Your task to perform on an android device: Go to sound settings Image 0: 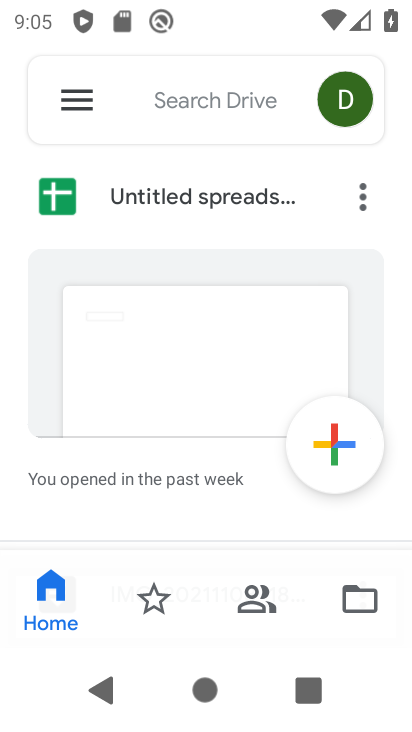
Step 0: press home button
Your task to perform on an android device: Go to sound settings Image 1: 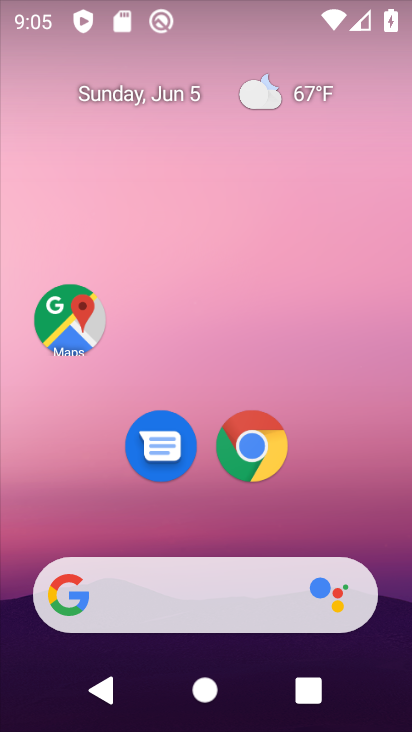
Step 1: drag from (206, 529) to (197, 98)
Your task to perform on an android device: Go to sound settings Image 2: 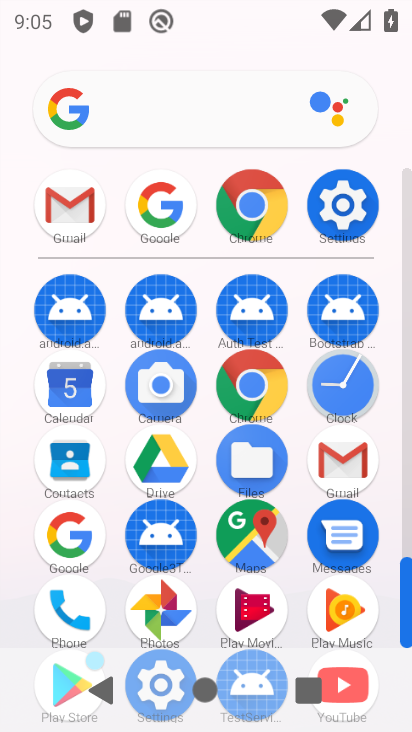
Step 2: click (326, 212)
Your task to perform on an android device: Go to sound settings Image 3: 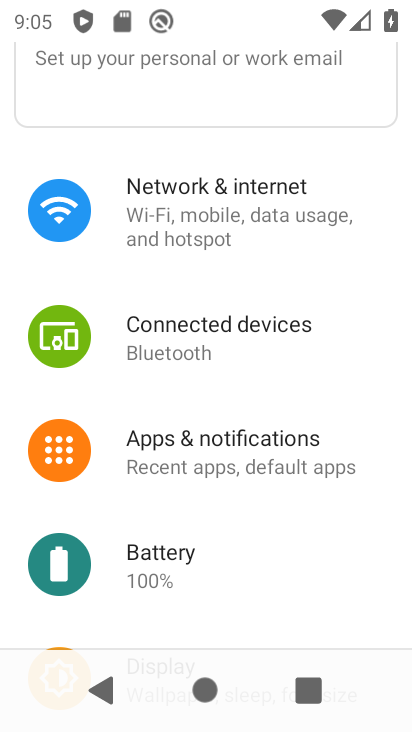
Step 3: drag from (222, 546) to (248, 300)
Your task to perform on an android device: Go to sound settings Image 4: 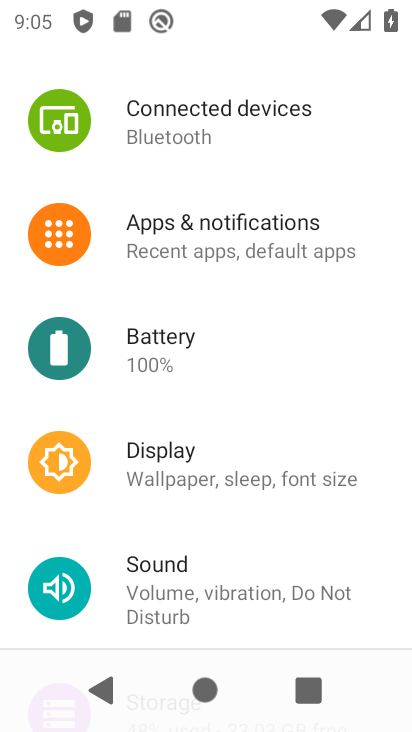
Step 4: click (199, 581)
Your task to perform on an android device: Go to sound settings Image 5: 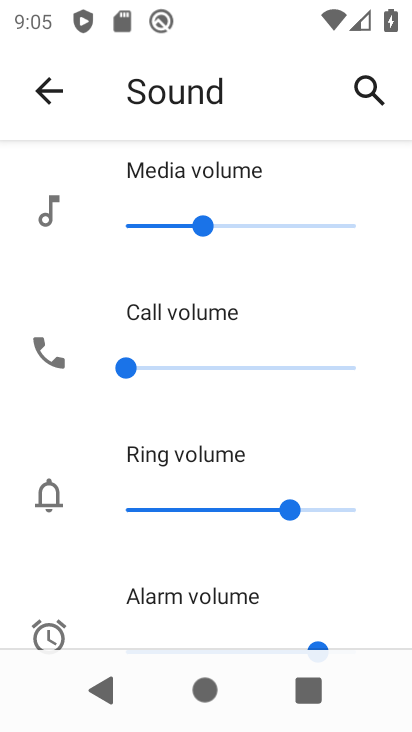
Step 5: task complete